Your task to perform on an android device: open app "Google Calendar" Image 0: 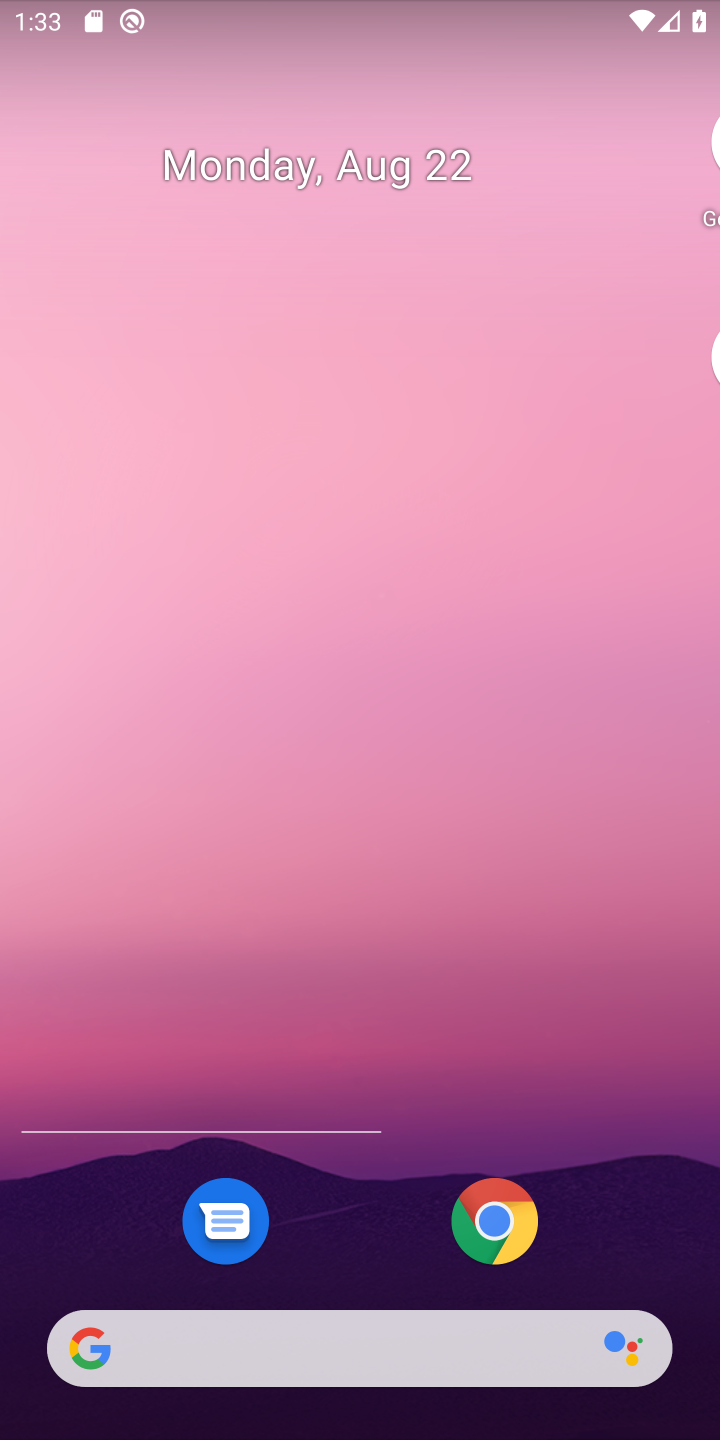
Step 0: press home button
Your task to perform on an android device: open app "Google Calendar" Image 1: 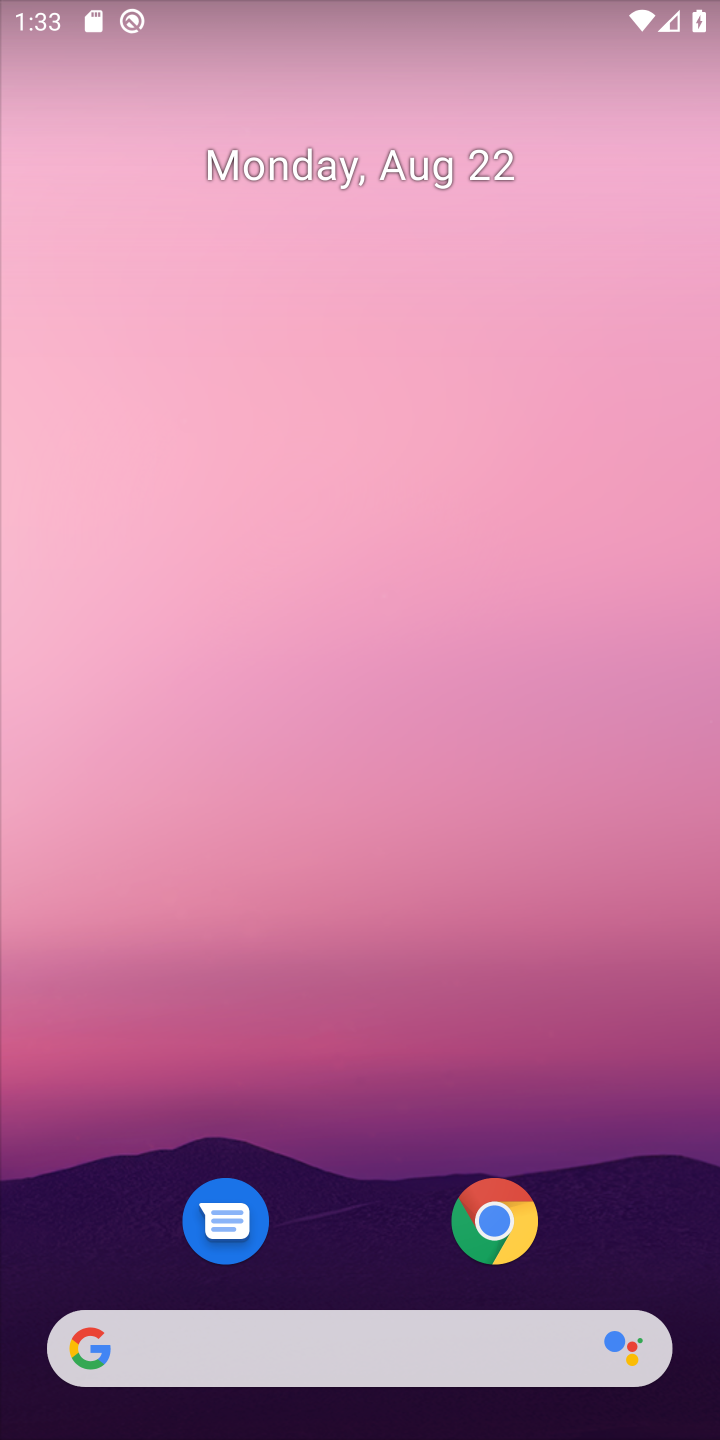
Step 1: drag from (365, 1270) to (384, 1)
Your task to perform on an android device: open app "Google Calendar" Image 2: 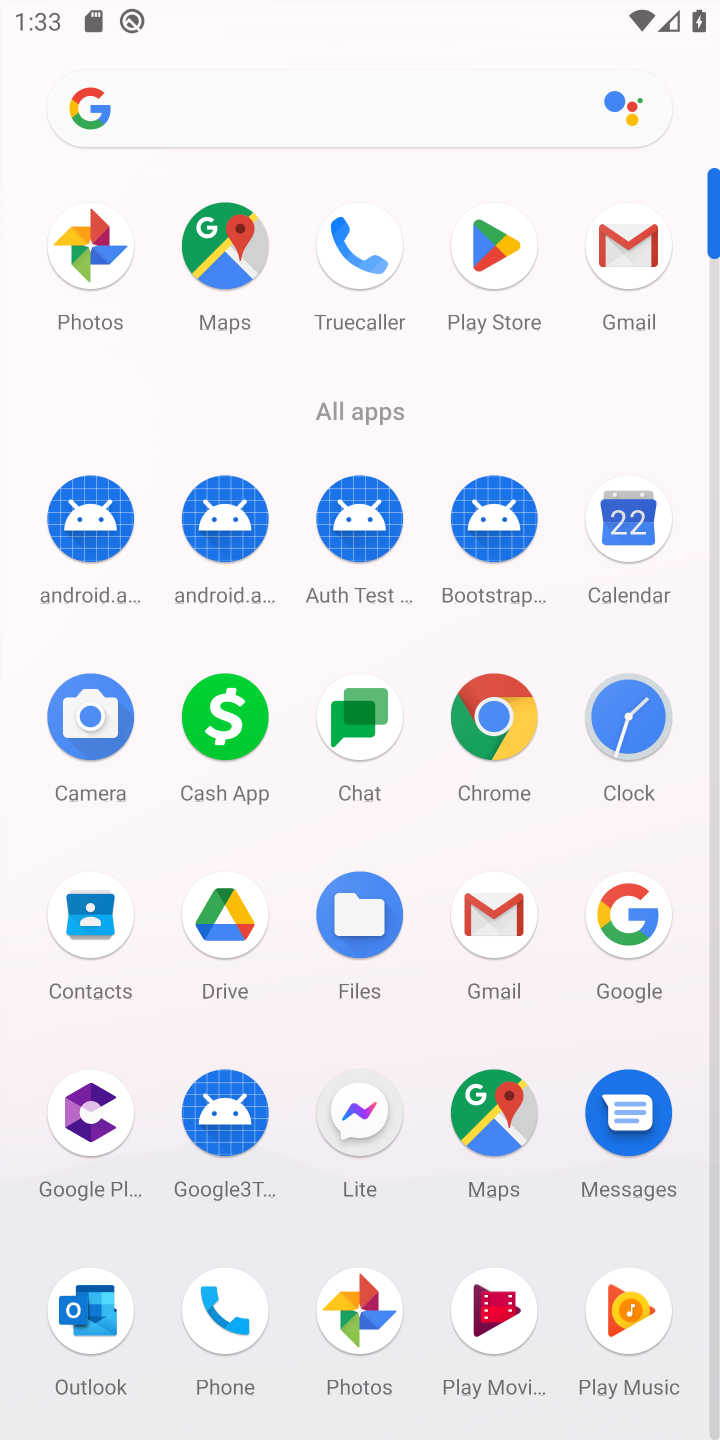
Step 2: click (625, 515)
Your task to perform on an android device: open app "Google Calendar" Image 3: 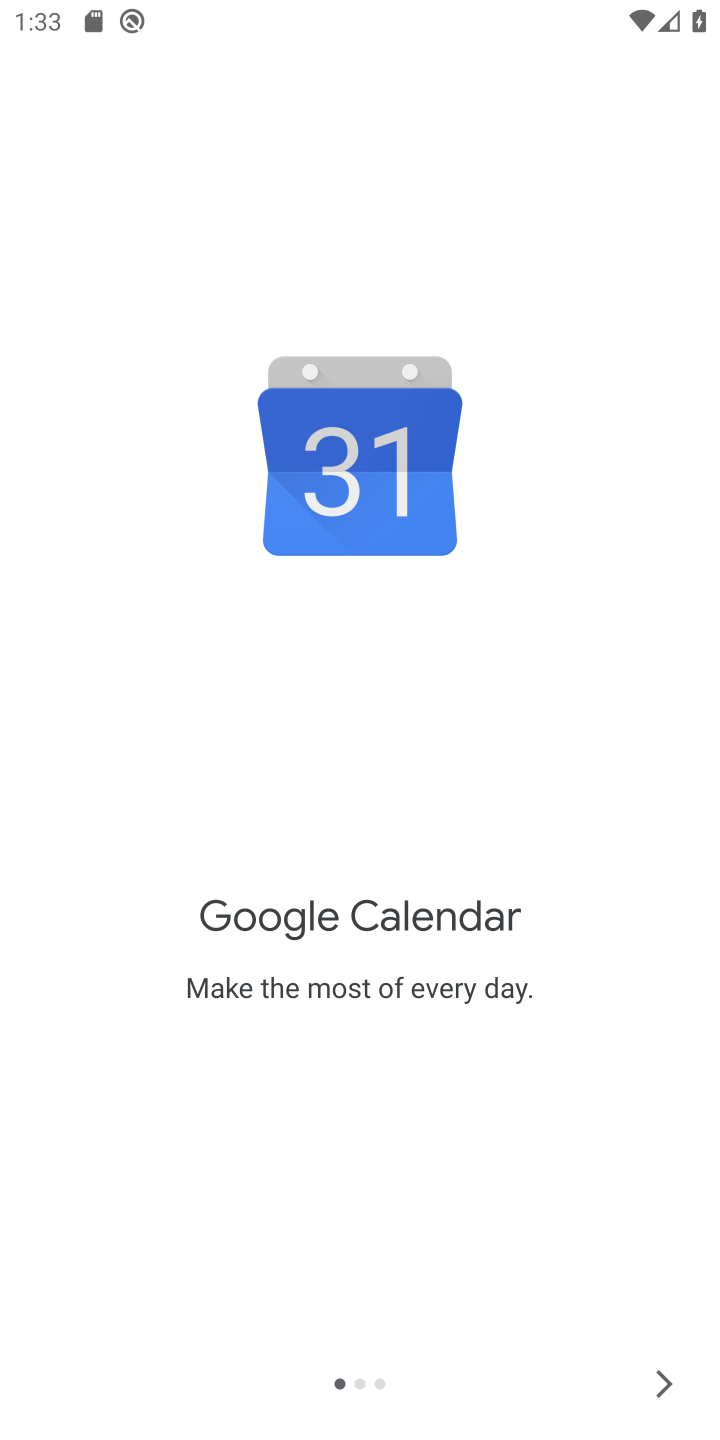
Step 3: click (666, 1365)
Your task to perform on an android device: open app "Google Calendar" Image 4: 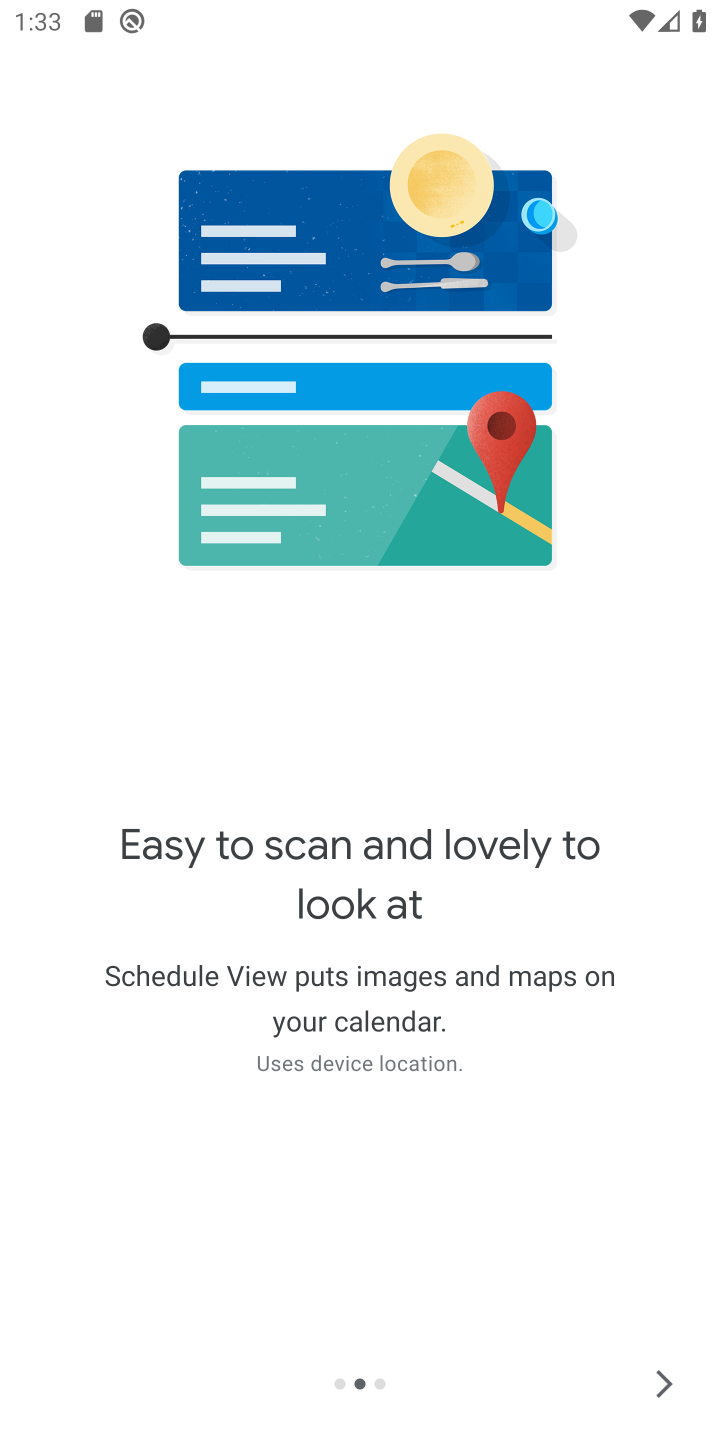
Step 4: click (666, 1365)
Your task to perform on an android device: open app "Google Calendar" Image 5: 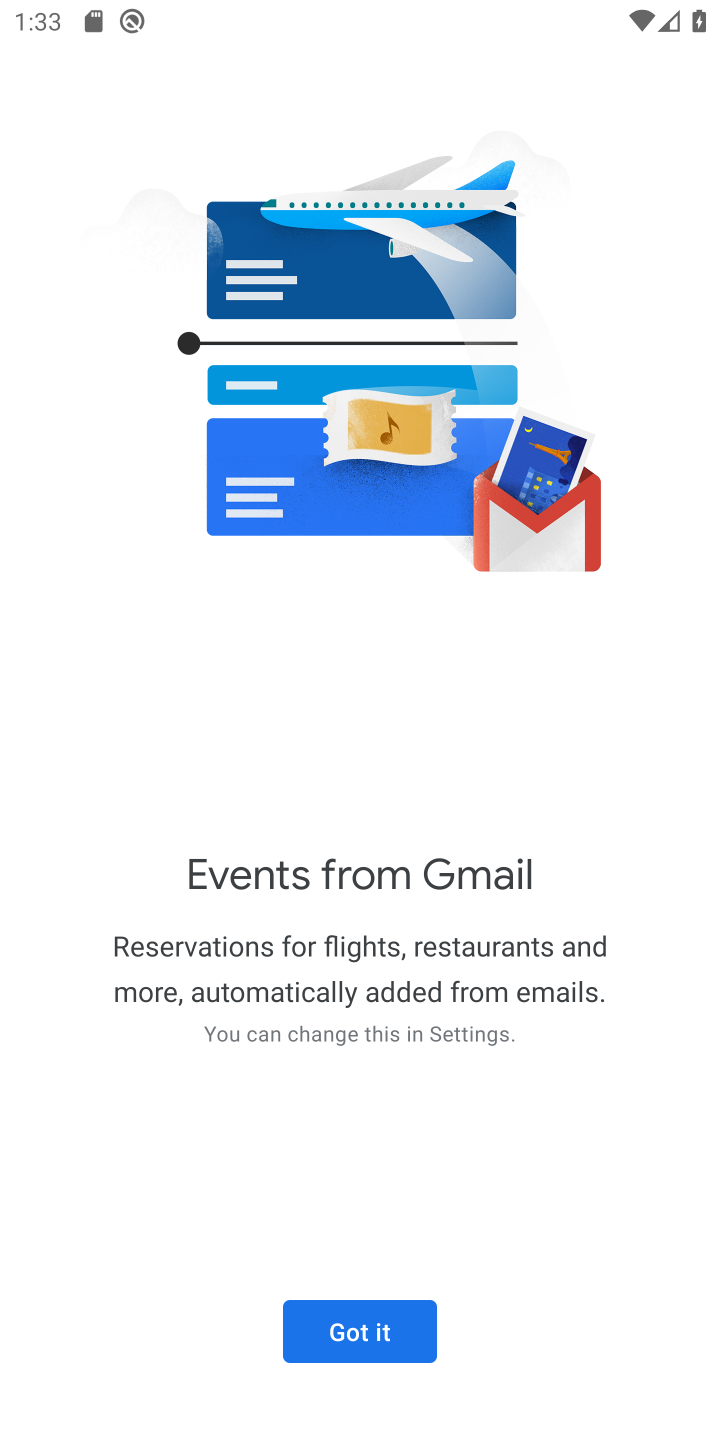
Step 5: press home button
Your task to perform on an android device: open app "Google Calendar" Image 6: 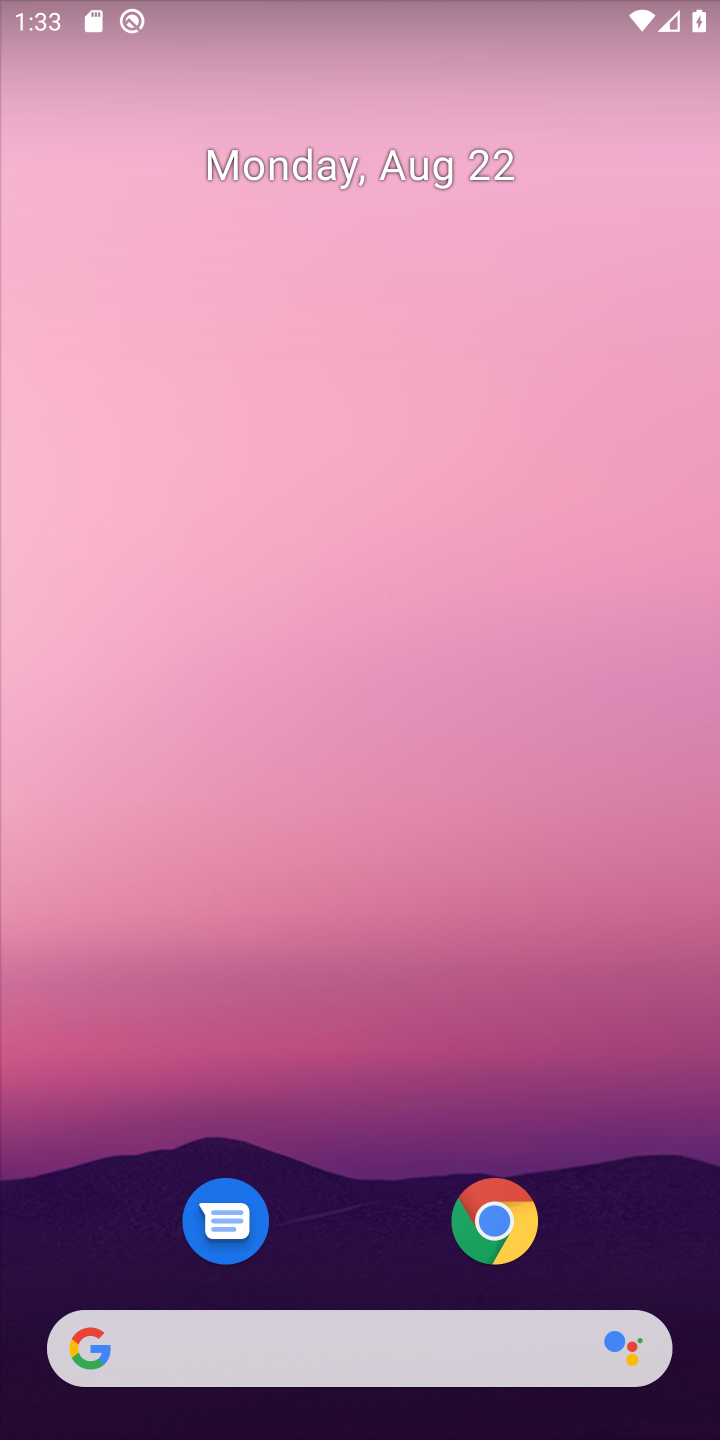
Step 6: drag from (371, 1280) to (361, 76)
Your task to perform on an android device: open app "Google Calendar" Image 7: 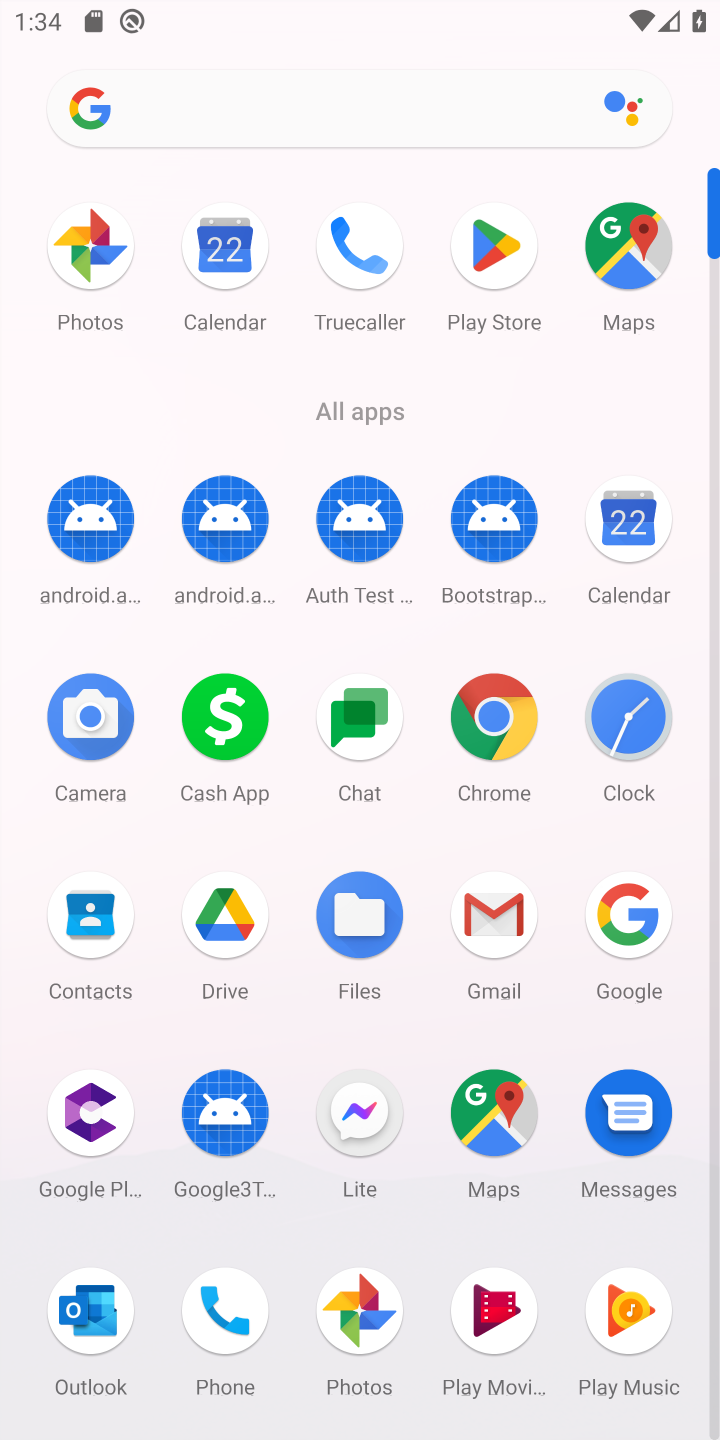
Step 7: click (491, 246)
Your task to perform on an android device: open app "Google Calendar" Image 8: 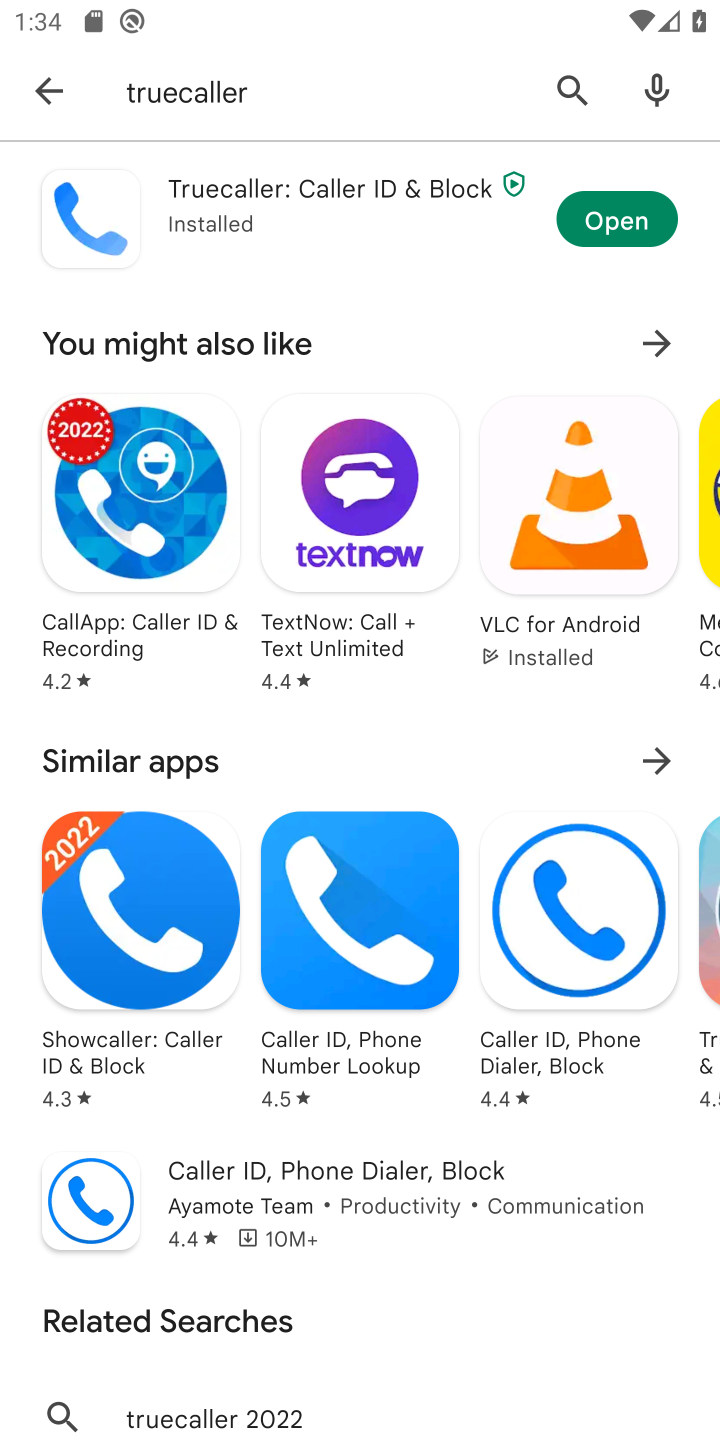
Step 8: click (562, 87)
Your task to perform on an android device: open app "Google Calendar" Image 9: 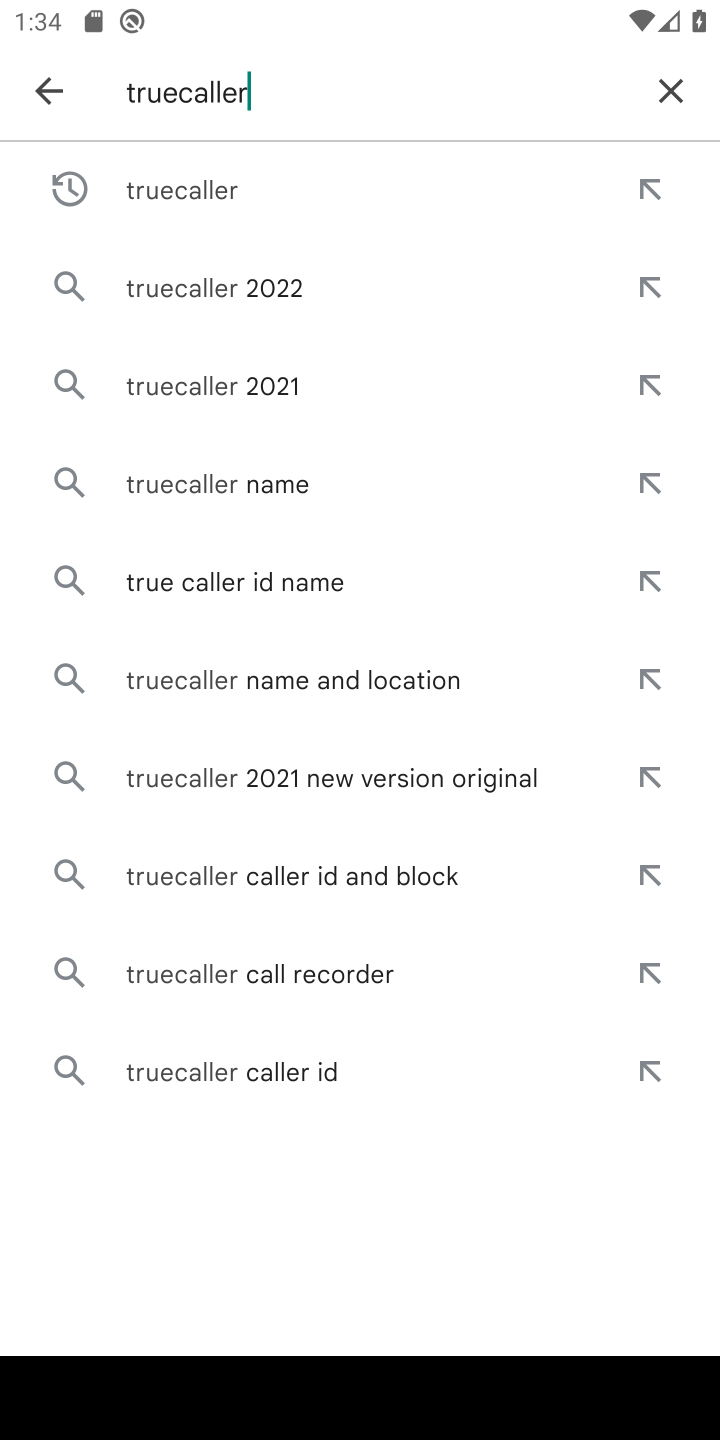
Step 9: click (678, 97)
Your task to perform on an android device: open app "Google Calendar" Image 10: 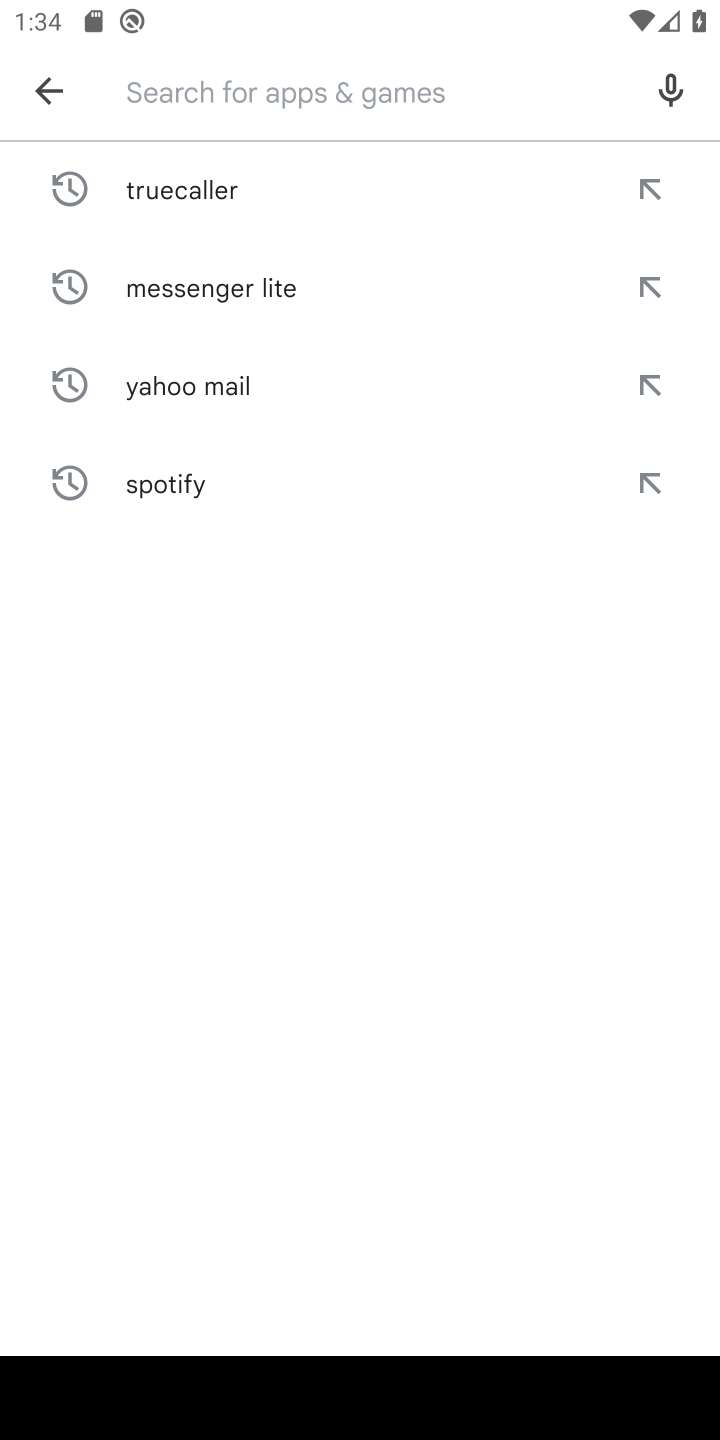
Step 10: type "Google Calendar"
Your task to perform on an android device: open app "Google Calendar" Image 11: 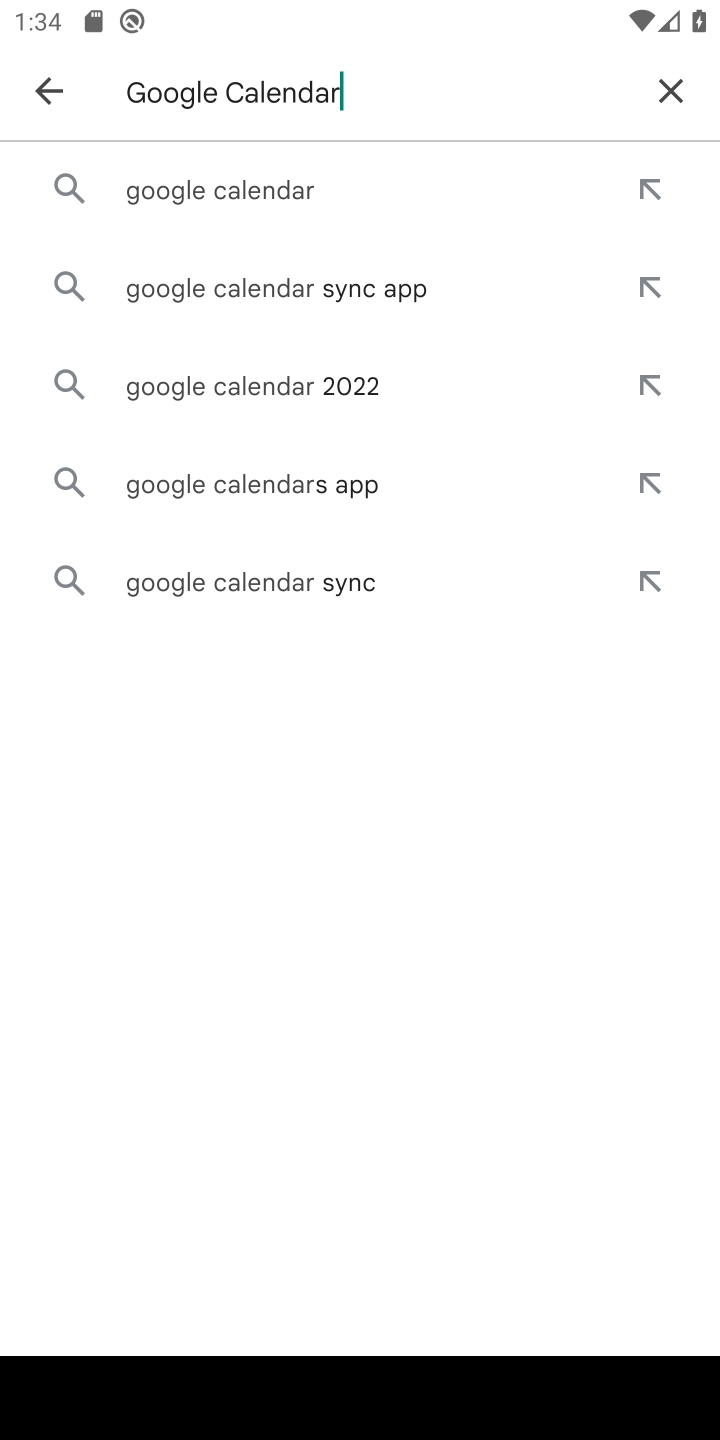
Step 11: click (337, 178)
Your task to perform on an android device: open app "Google Calendar" Image 12: 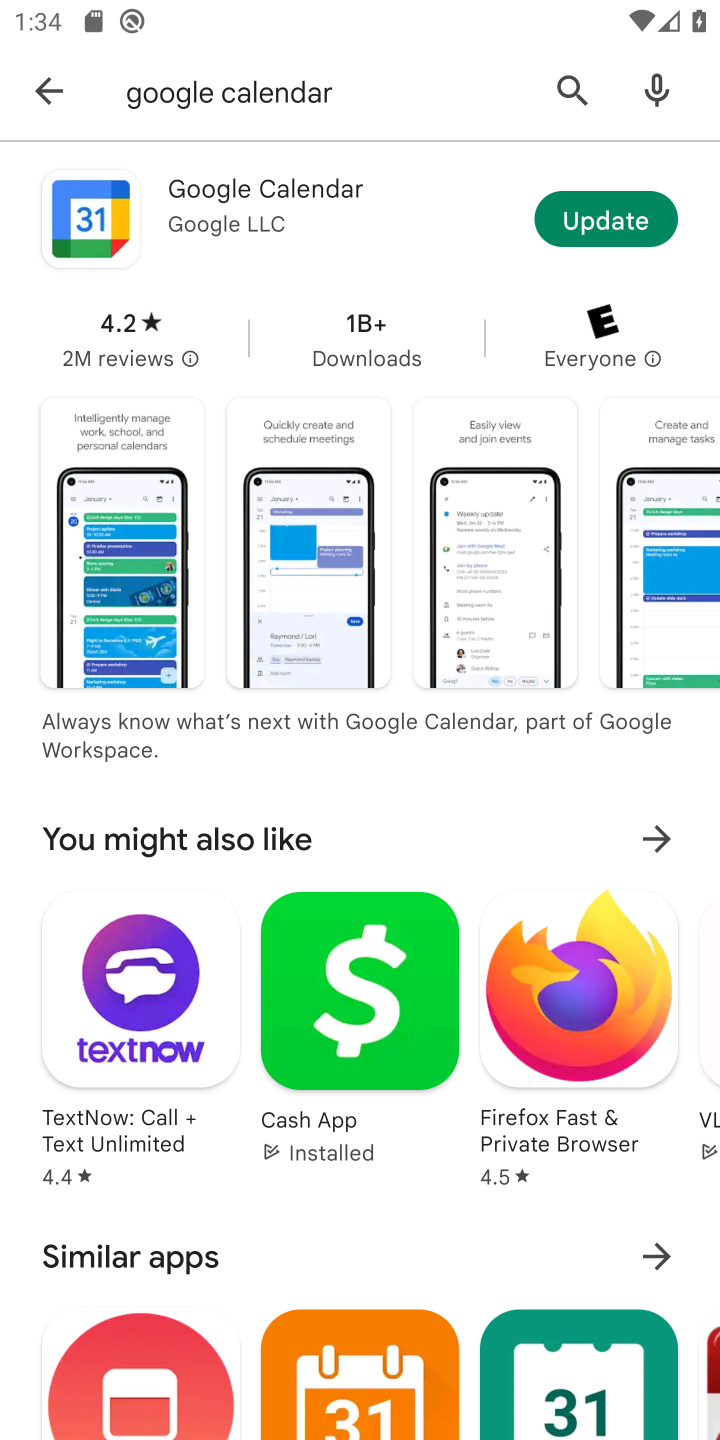
Step 12: click (605, 225)
Your task to perform on an android device: open app "Google Calendar" Image 13: 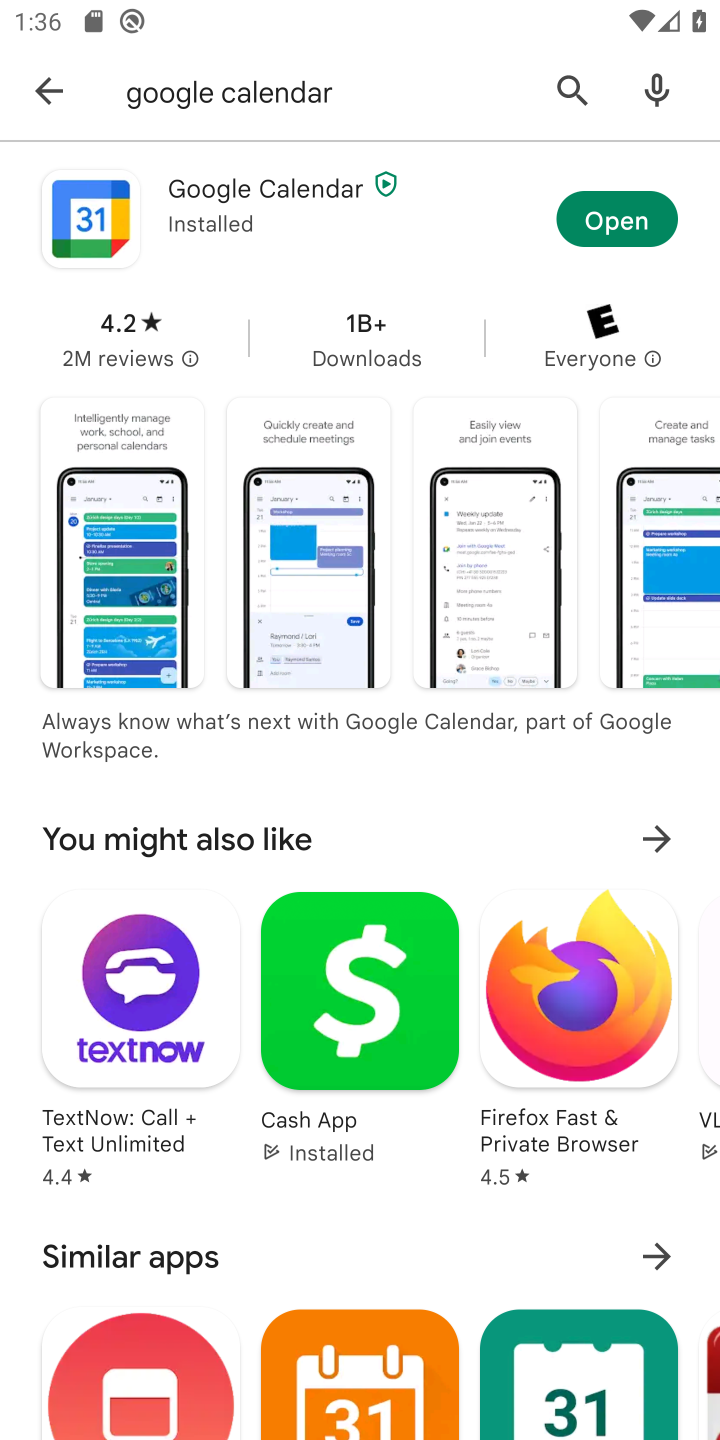
Step 13: click (617, 226)
Your task to perform on an android device: open app "Google Calendar" Image 14: 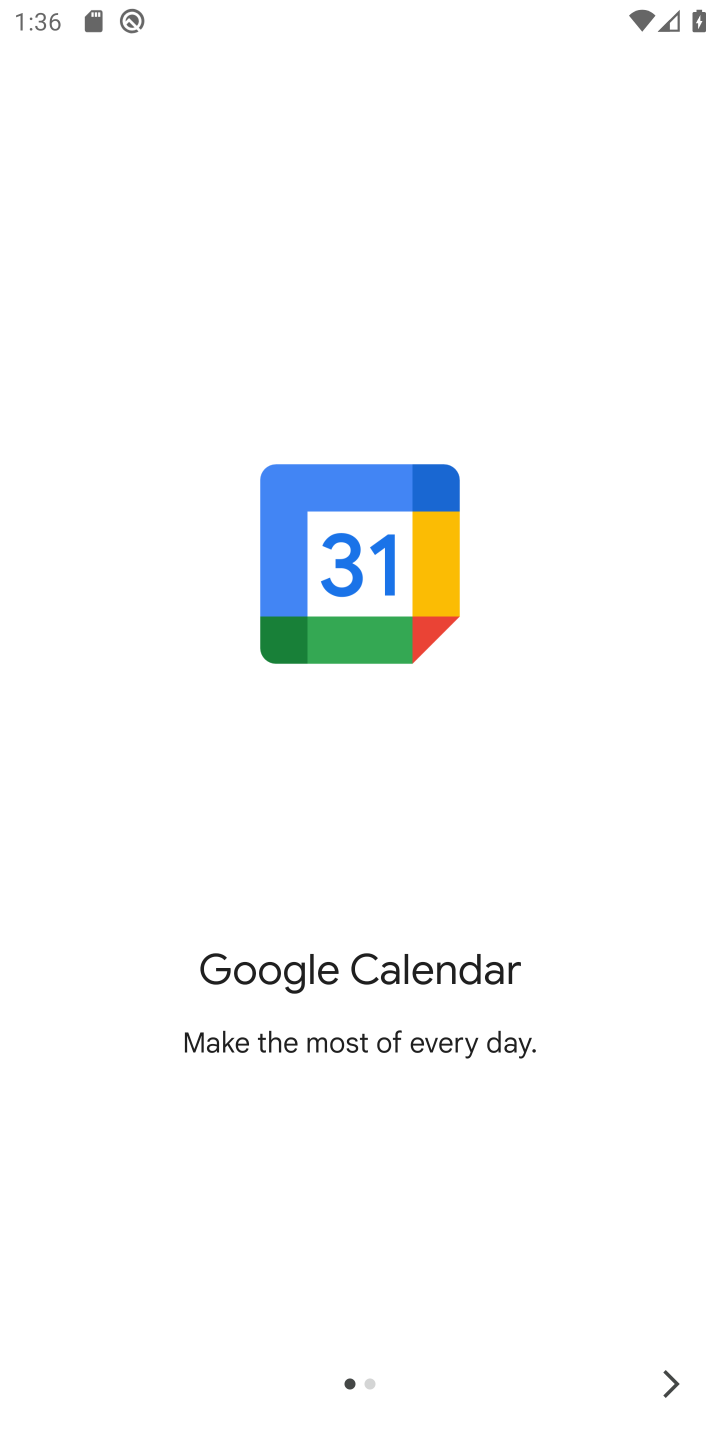
Step 14: click (666, 1389)
Your task to perform on an android device: open app "Google Calendar" Image 15: 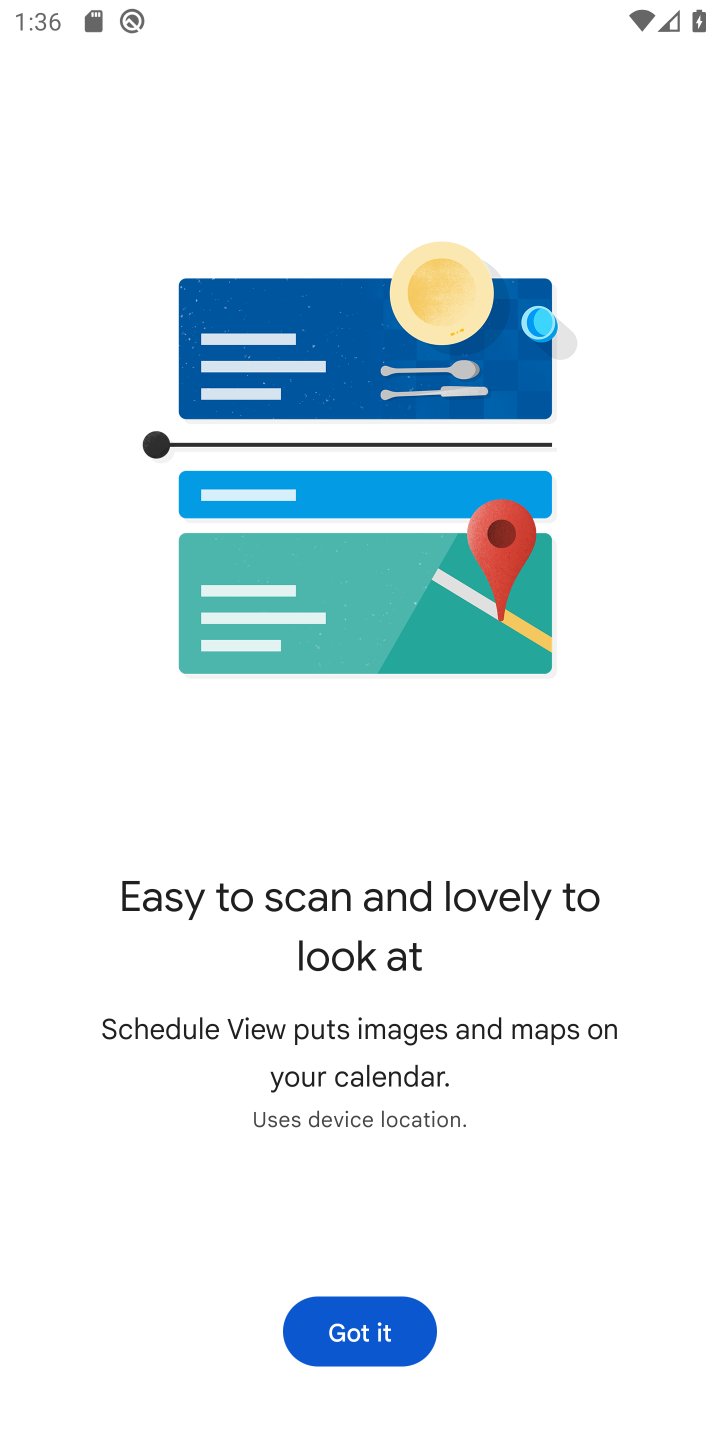
Step 15: click (666, 1389)
Your task to perform on an android device: open app "Google Calendar" Image 16: 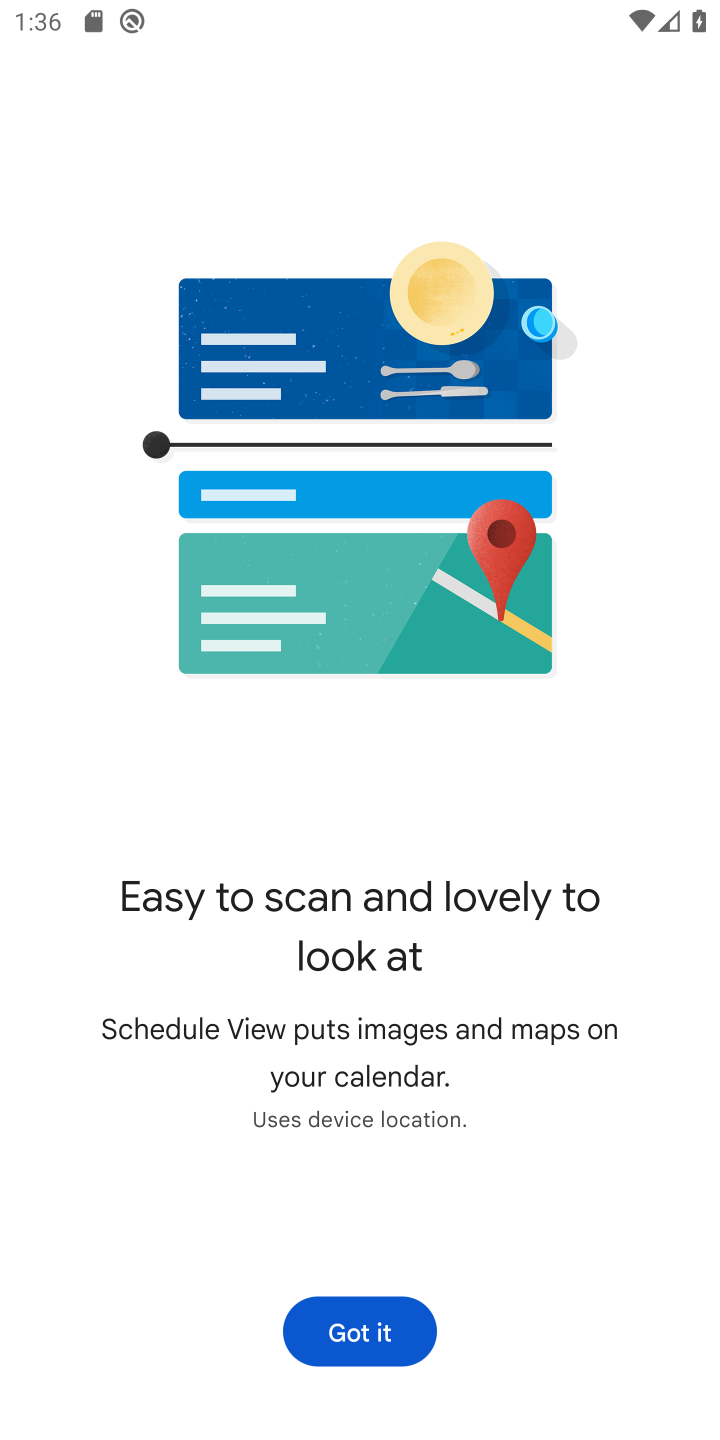
Step 16: click (326, 1315)
Your task to perform on an android device: open app "Google Calendar" Image 17: 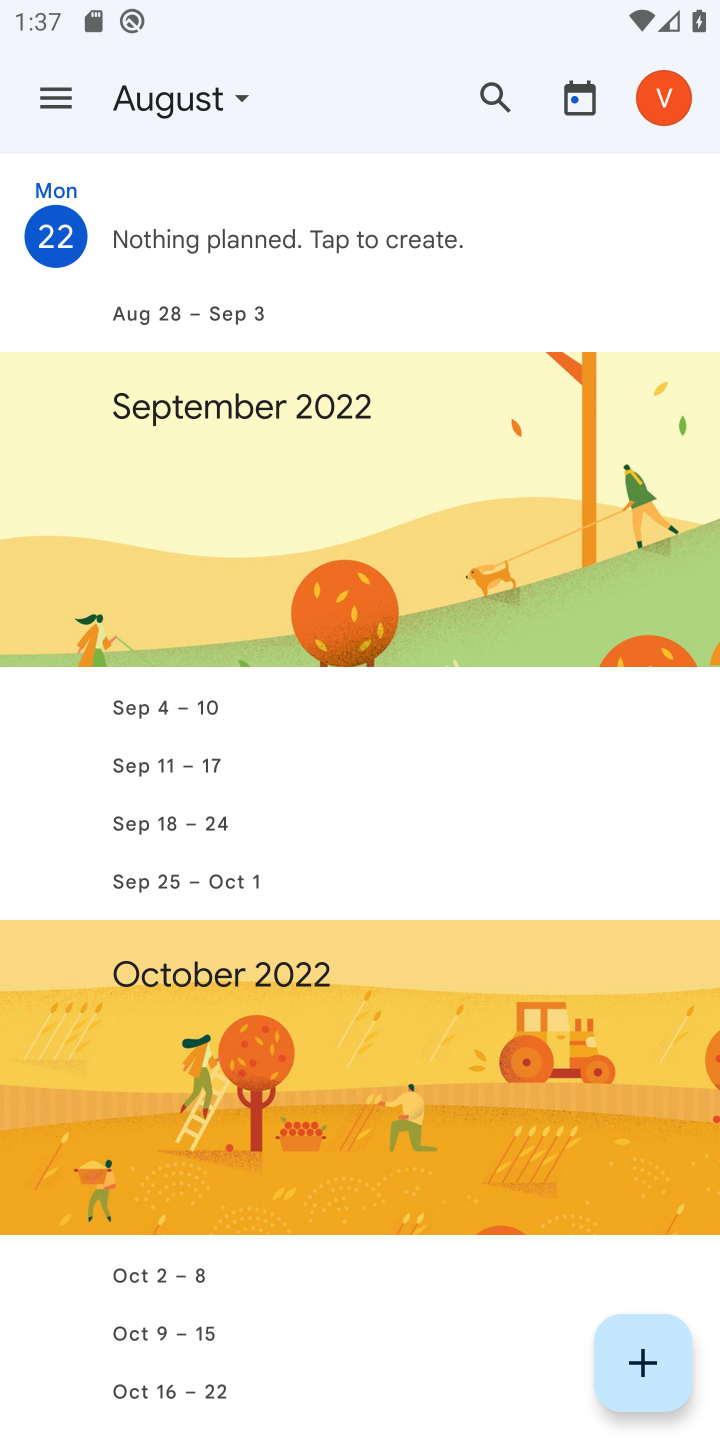
Step 17: task complete